Your task to perform on an android device: install app "Expedia: Hotels, Flights & Car" Image 0: 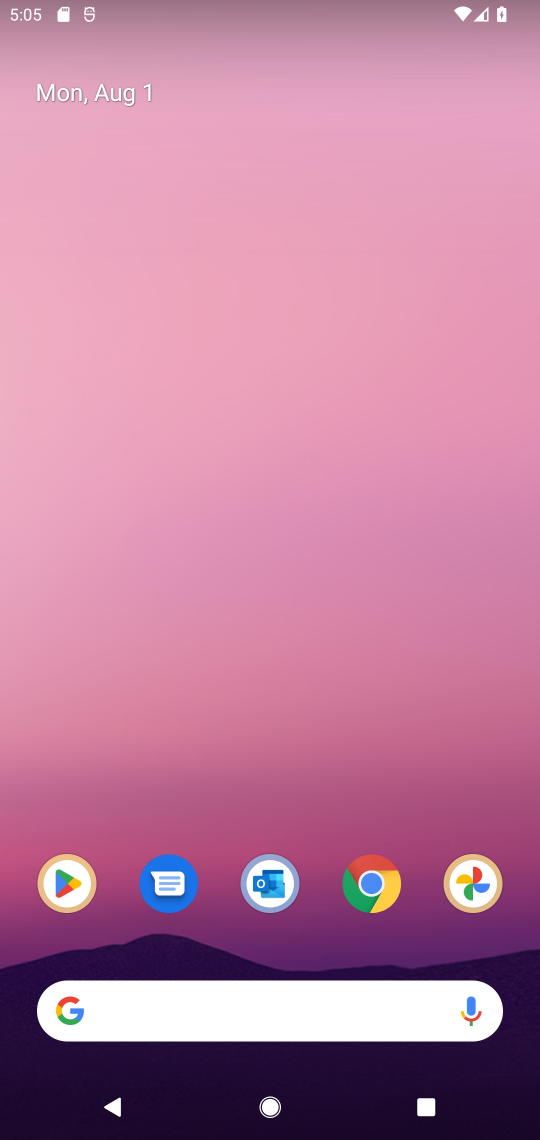
Step 0: drag from (280, 895) to (280, 337)
Your task to perform on an android device: install app "Expedia: Hotels, Flights & Car" Image 1: 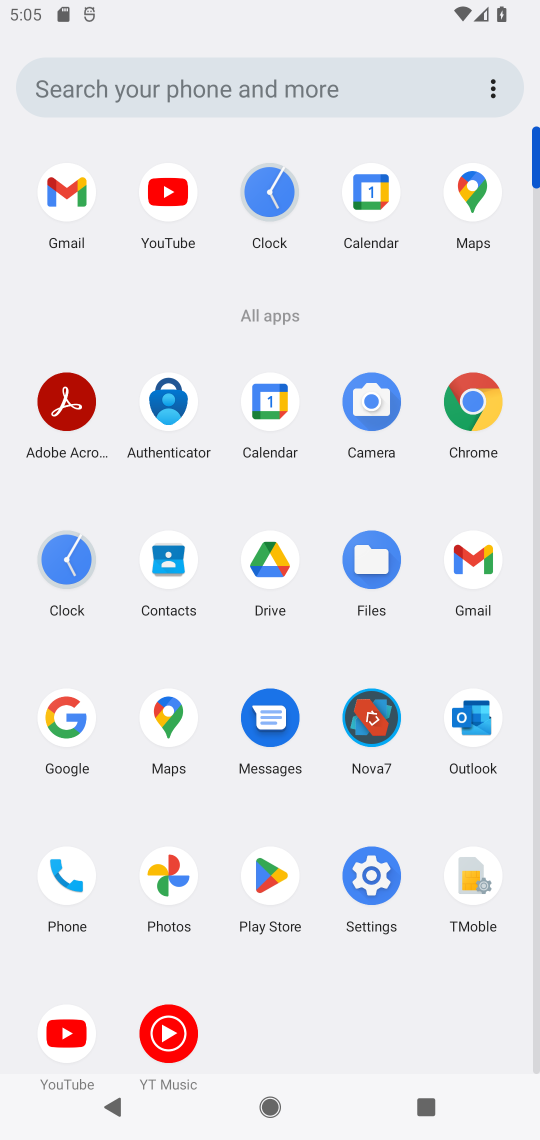
Step 1: click (261, 879)
Your task to perform on an android device: install app "Expedia: Hotels, Flights & Car" Image 2: 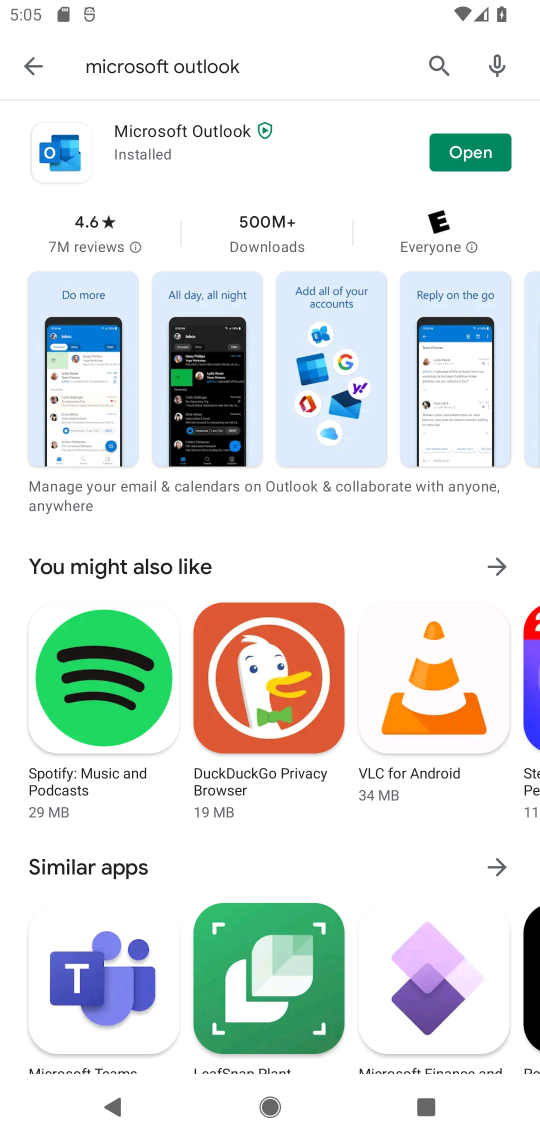
Step 2: click (448, 63)
Your task to perform on an android device: install app "Expedia: Hotels, Flights & Car" Image 3: 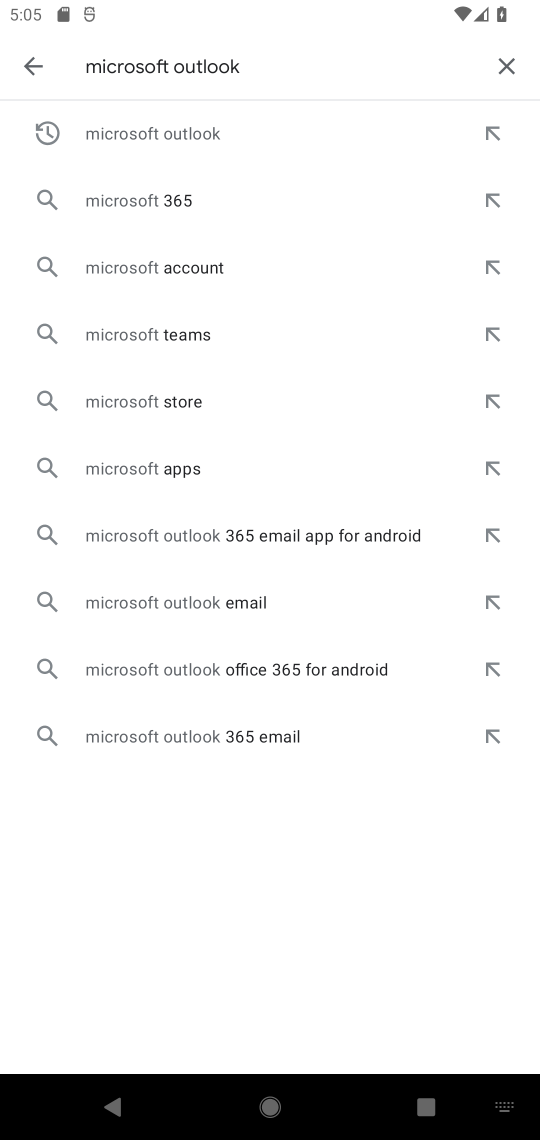
Step 3: click (502, 59)
Your task to perform on an android device: install app "Expedia: Hotels, Flights & Car" Image 4: 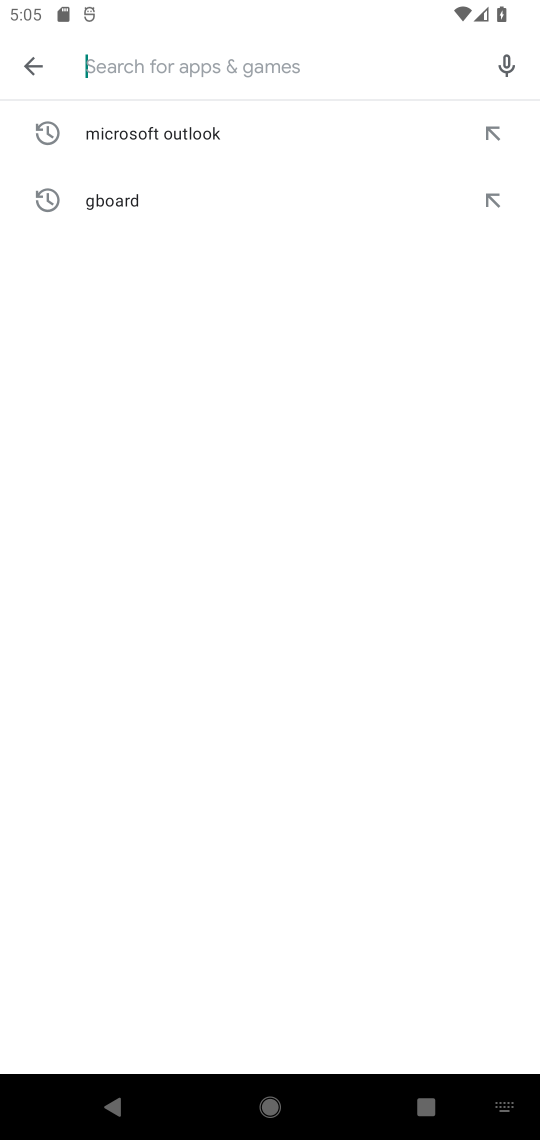
Step 4: type "Expedia: Hotels, Flights & Car"
Your task to perform on an android device: install app "Expedia: Hotels, Flights & Car" Image 5: 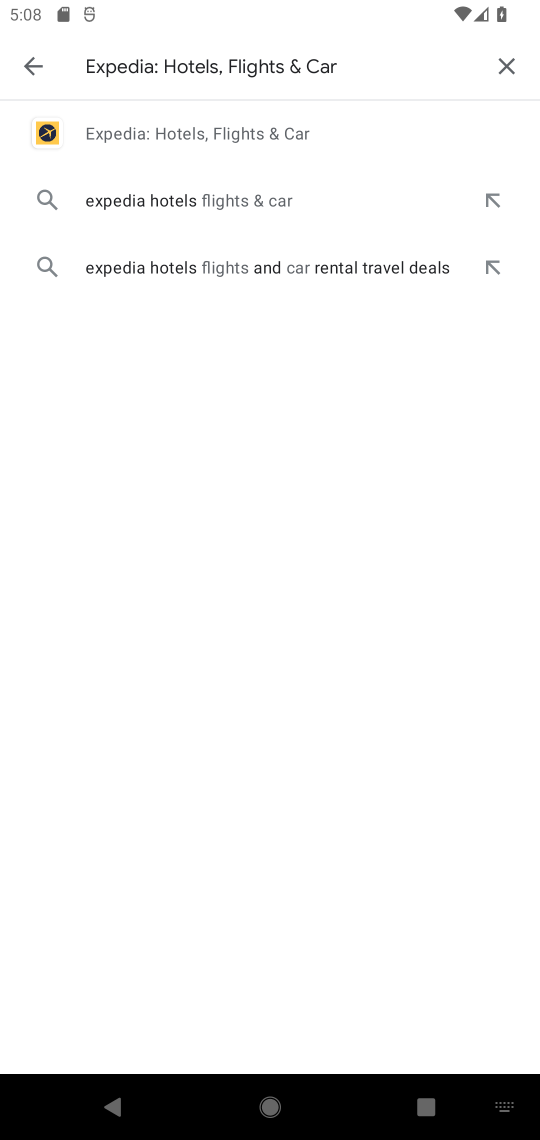
Step 5: click (163, 123)
Your task to perform on an android device: install app "Expedia: Hotels, Flights & Car" Image 6: 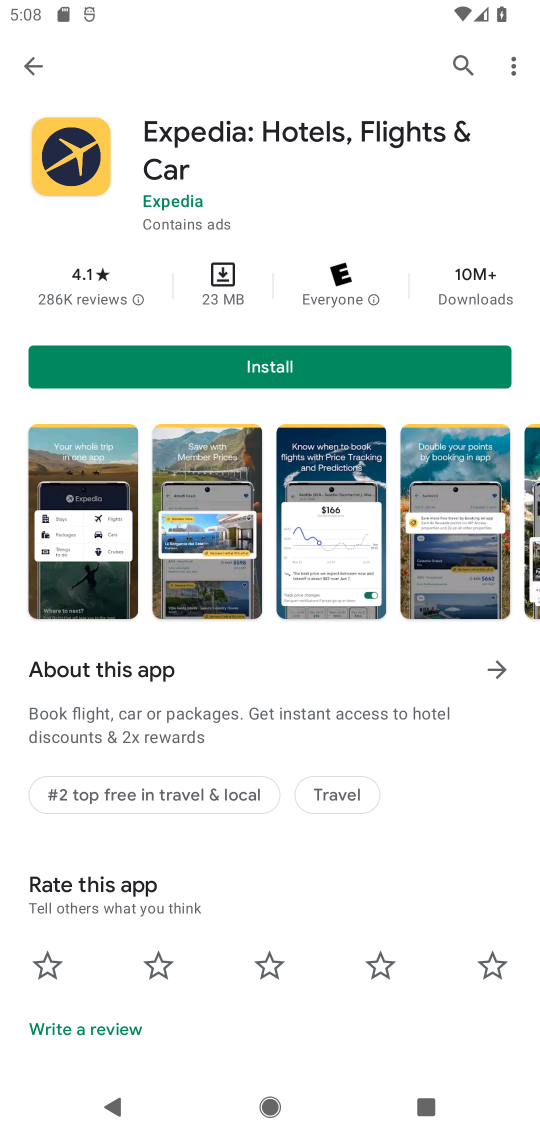
Step 6: click (305, 372)
Your task to perform on an android device: install app "Expedia: Hotels, Flights & Car" Image 7: 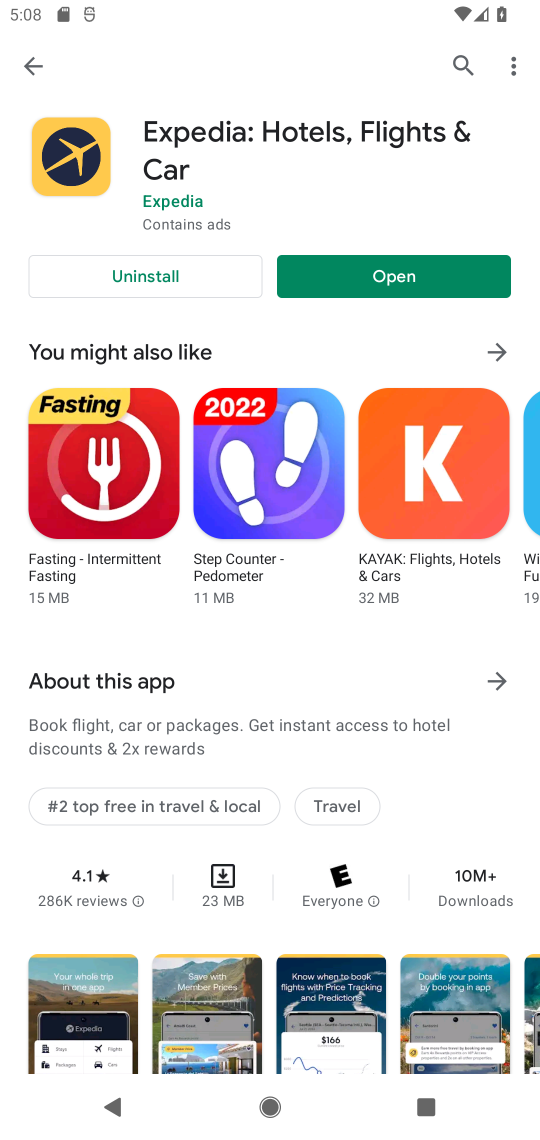
Step 7: task complete